Your task to perform on an android device: Open internet settings Image 0: 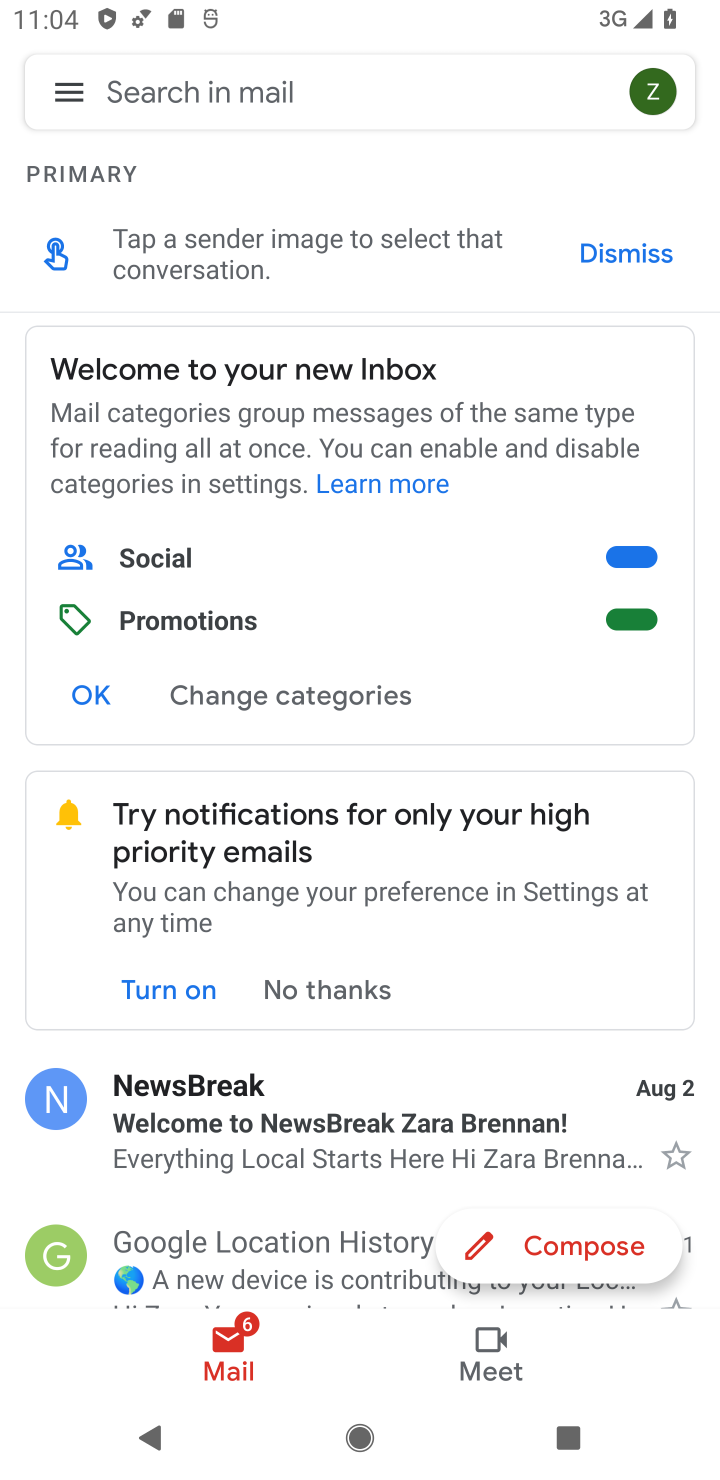
Step 0: press home button
Your task to perform on an android device: Open internet settings Image 1: 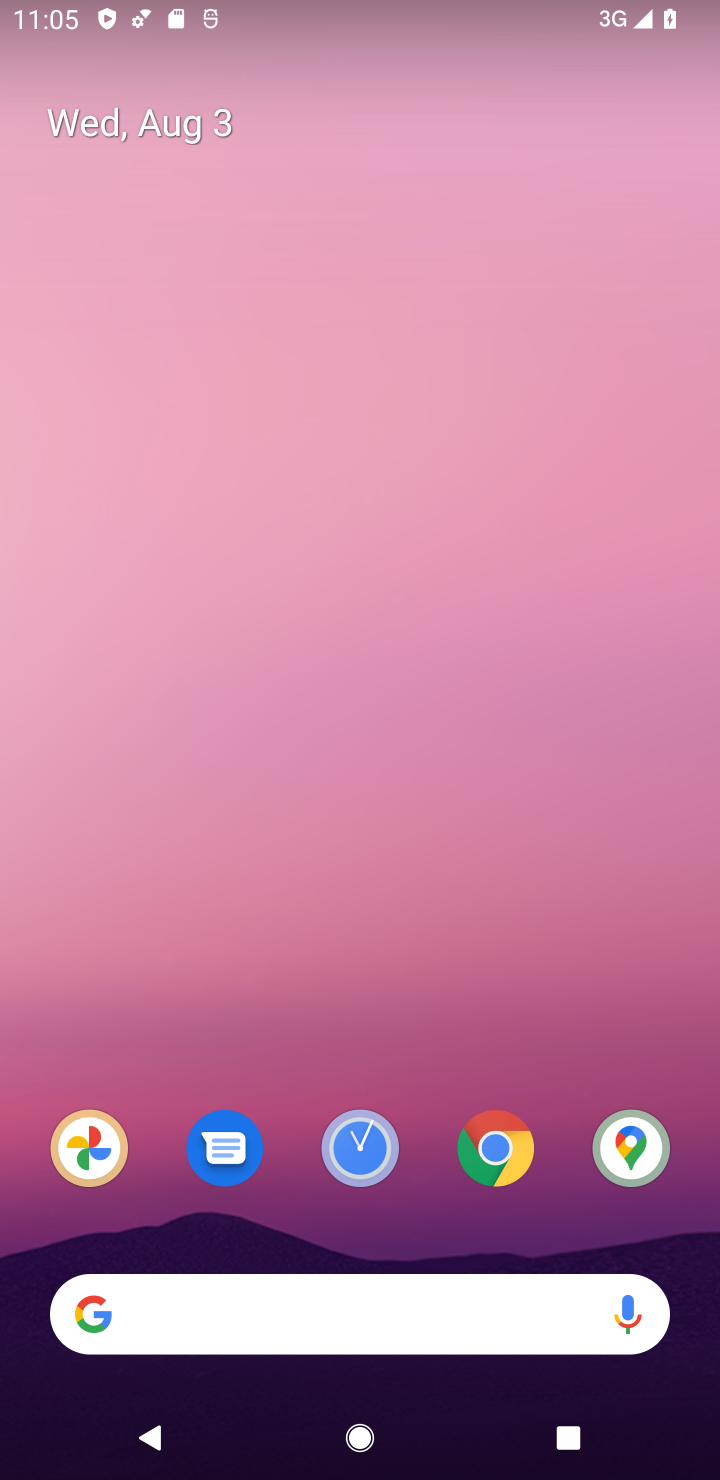
Step 1: drag from (434, 477) to (458, 0)
Your task to perform on an android device: Open internet settings Image 2: 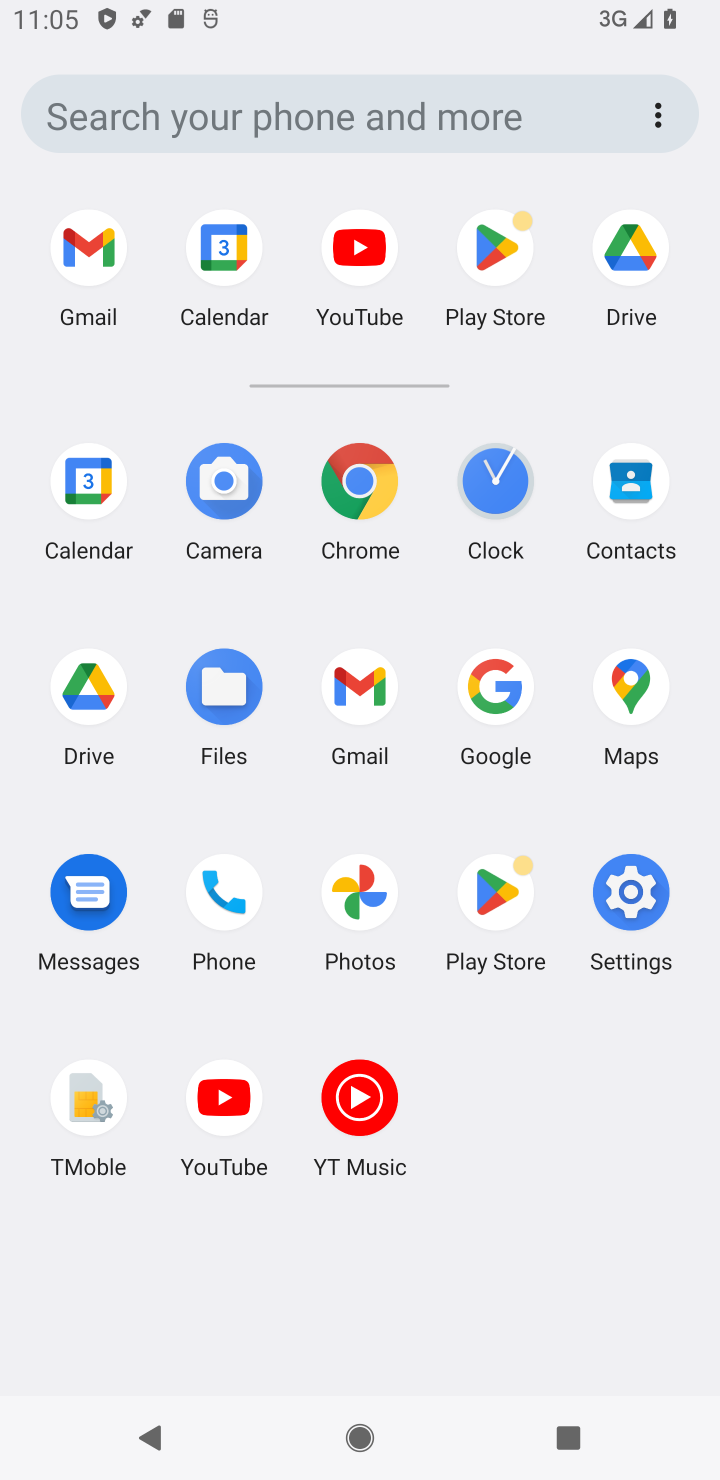
Step 2: click (354, 482)
Your task to perform on an android device: Open internet settings Image 3: 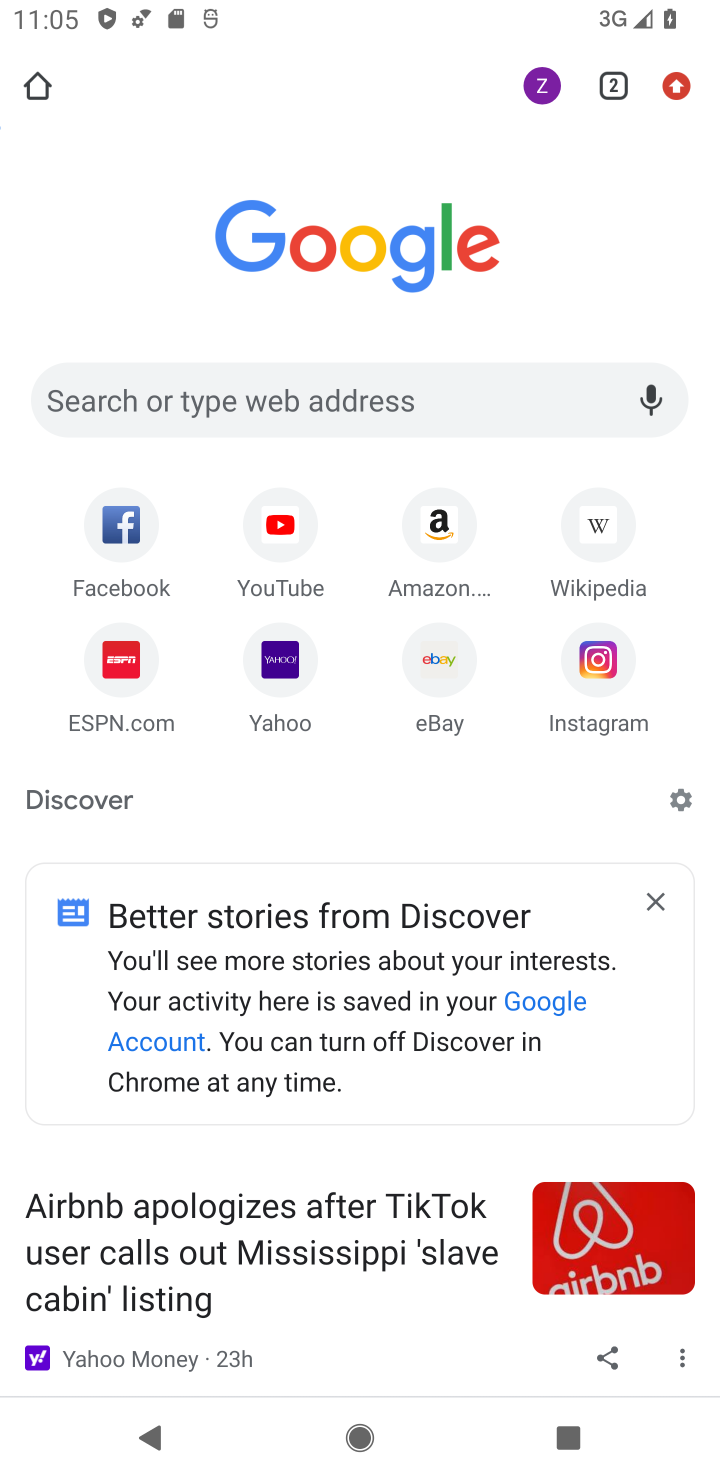
Step 3: click (673, 86)
Your task to perform on an android device: Open internet settings Image 4: 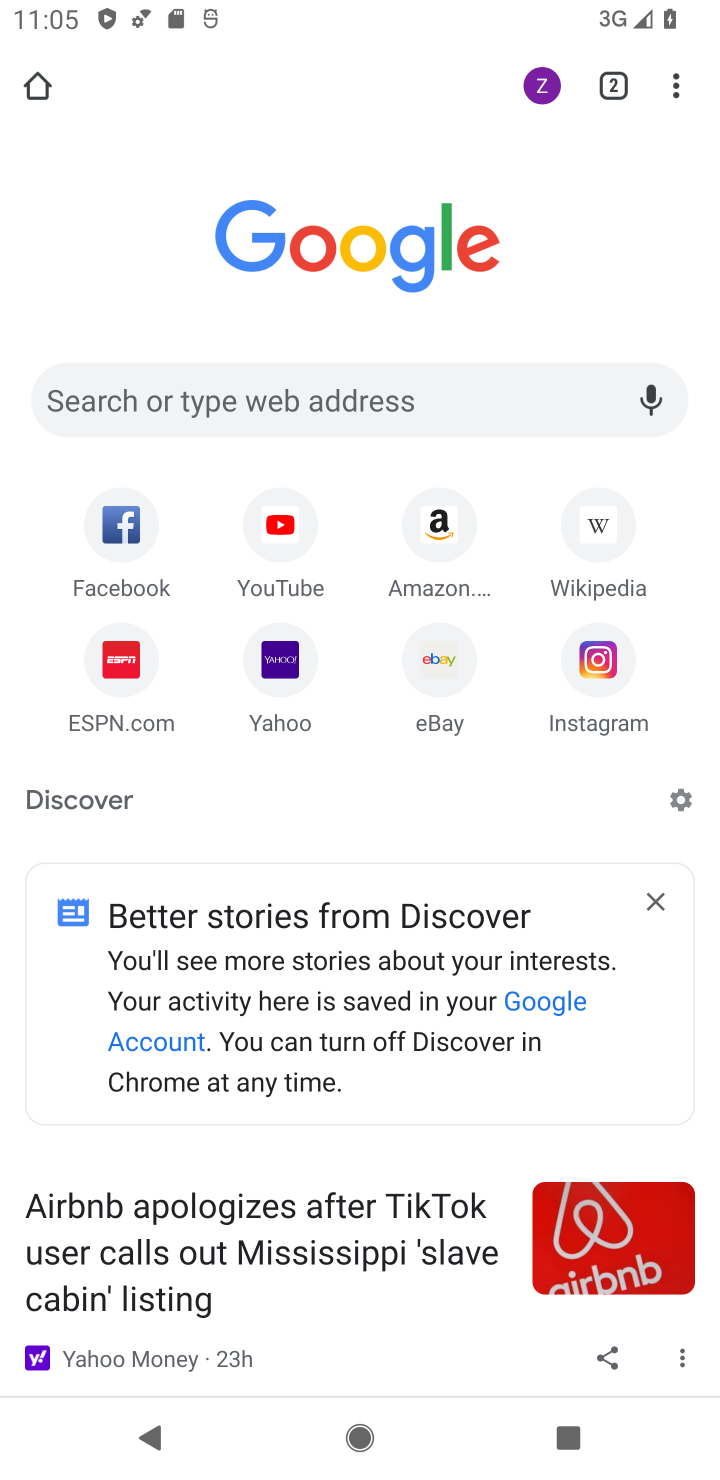
Step 4: click (678, 92)
Your task to perform on an android device: Open internet settings Image 5: 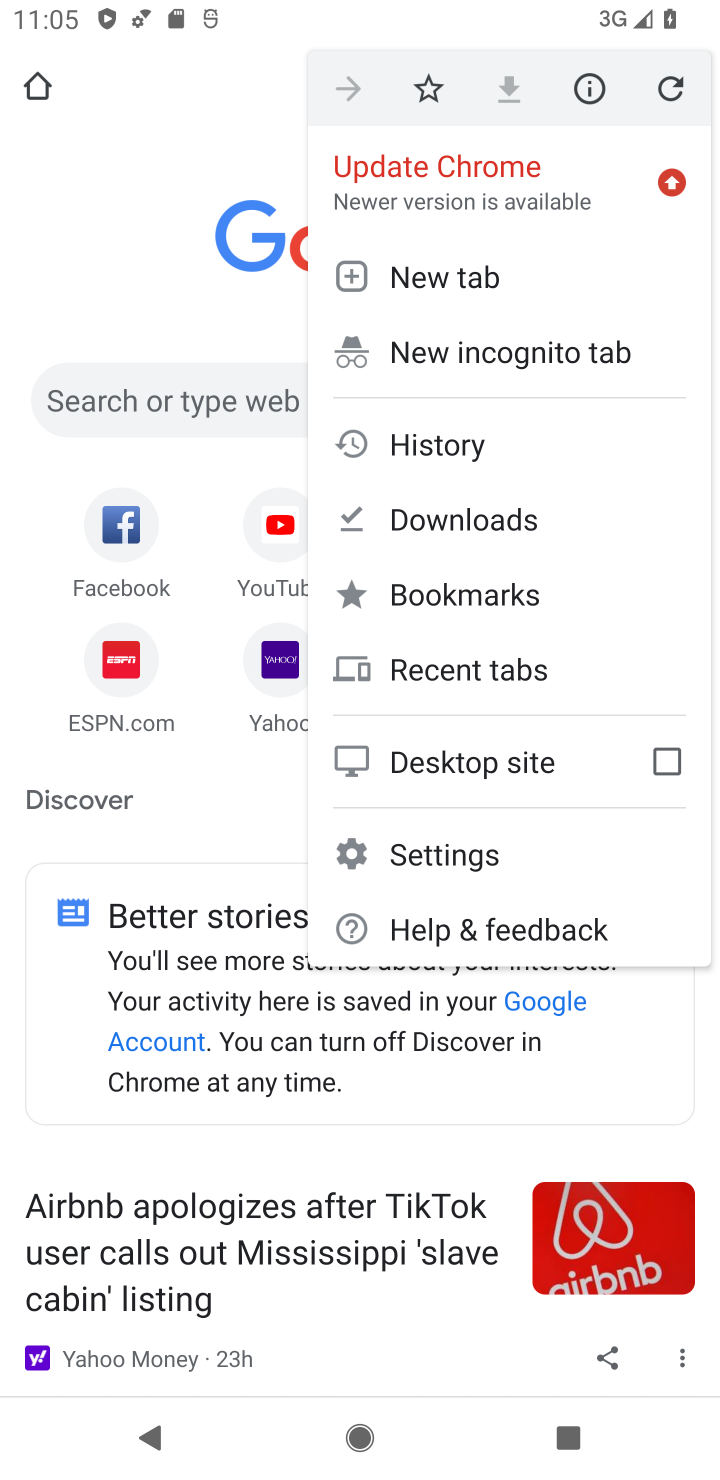
Step 5: press home button
Your task to perform on an android device: Open internet settings Image 6: 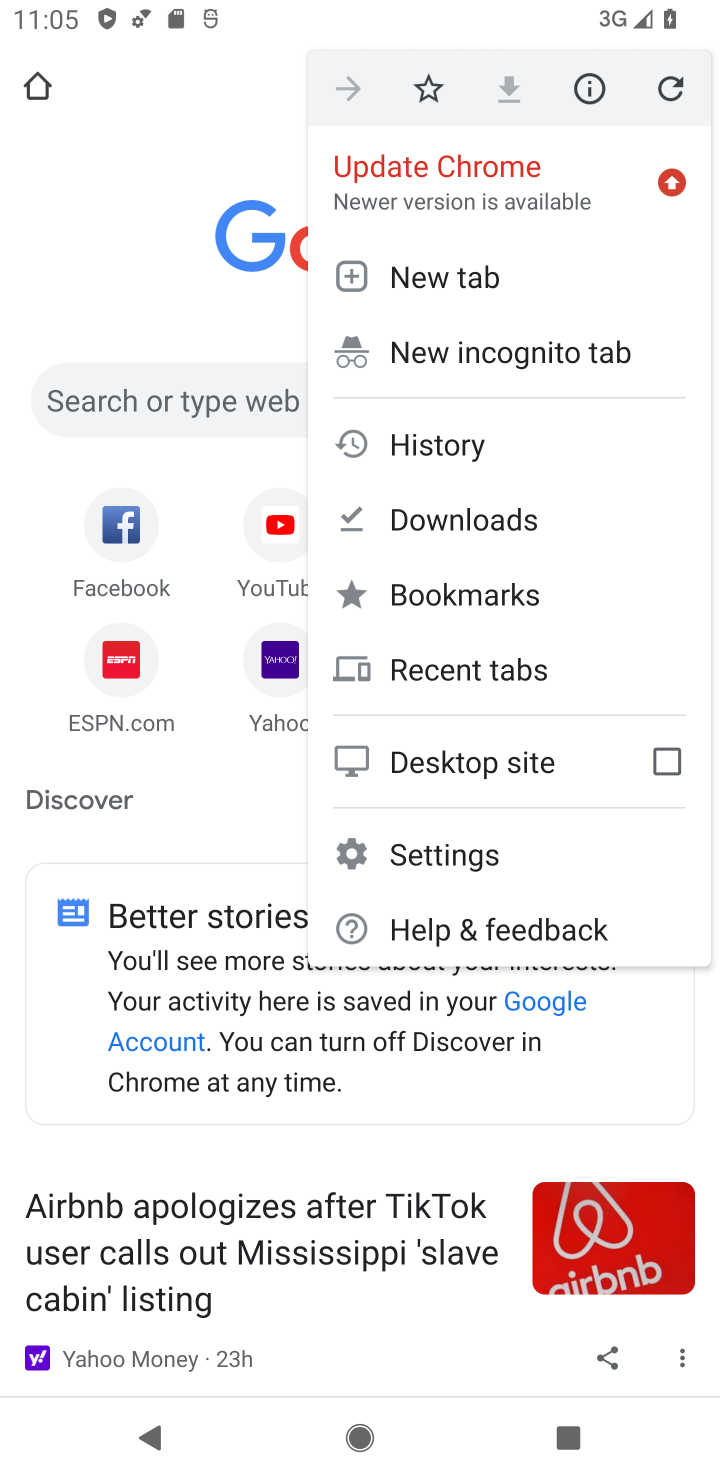
Step 6: press home button
Your task to perform on an android device: Open internet settings Image 7: 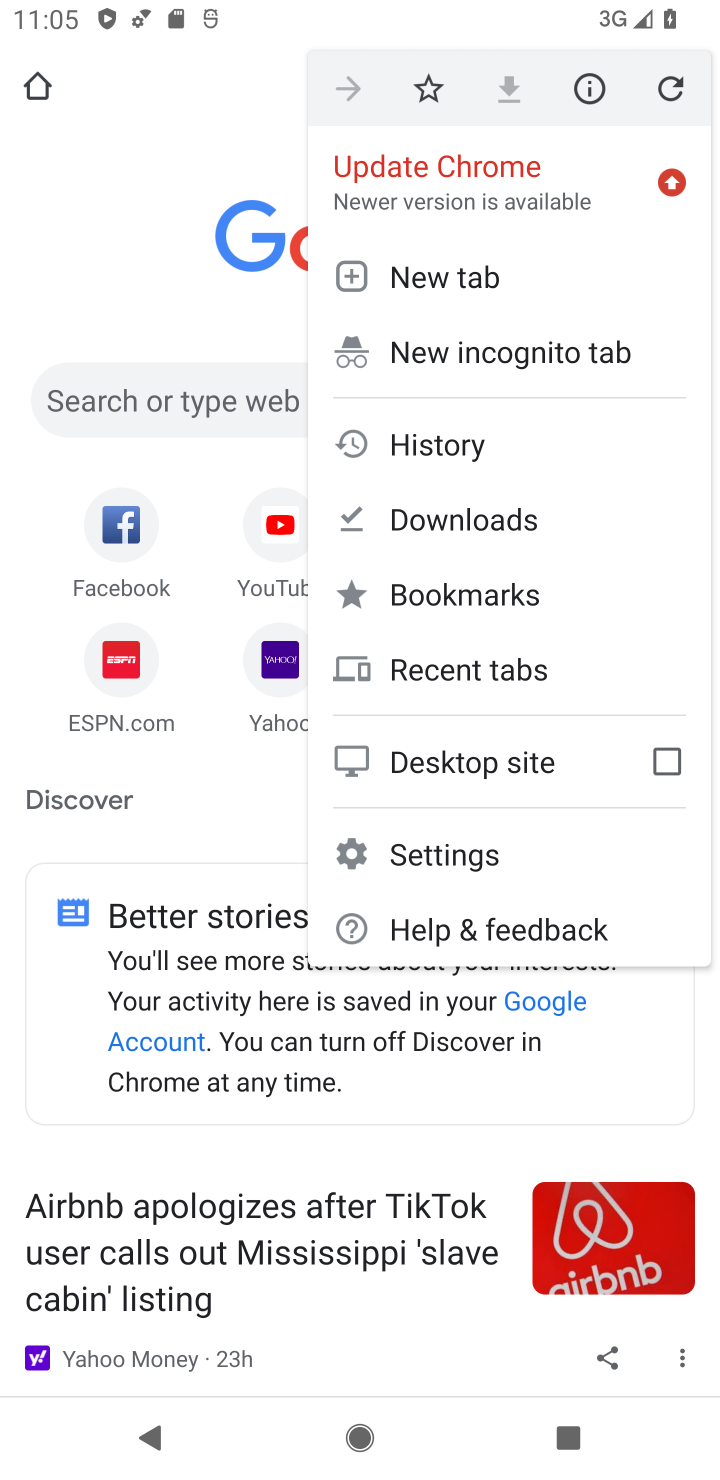
Step 7: press home button
Your task to perform on an android device: Open internet settings Image 8: 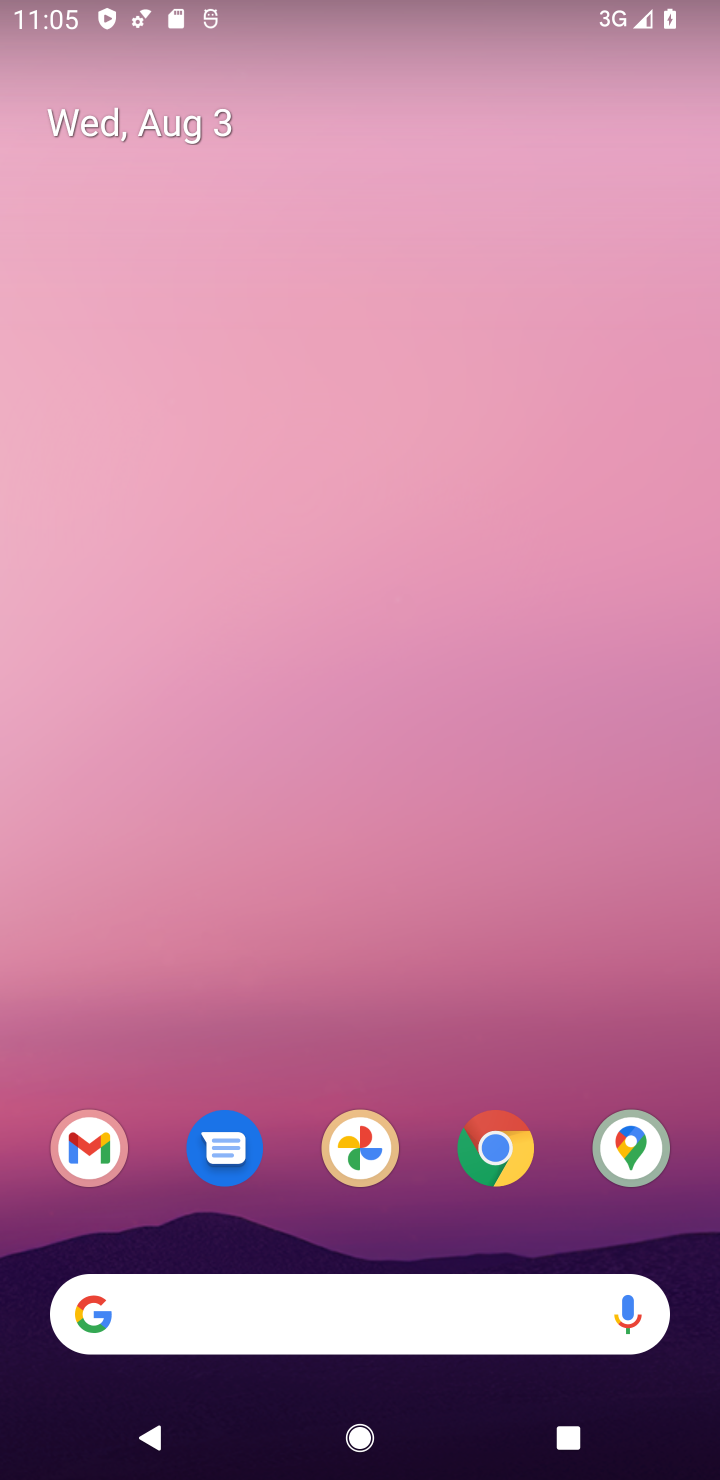
Step 8: drag from (431, 988) to (443, 118)
Your task to perform on an android device: Open internet settings Image 9: 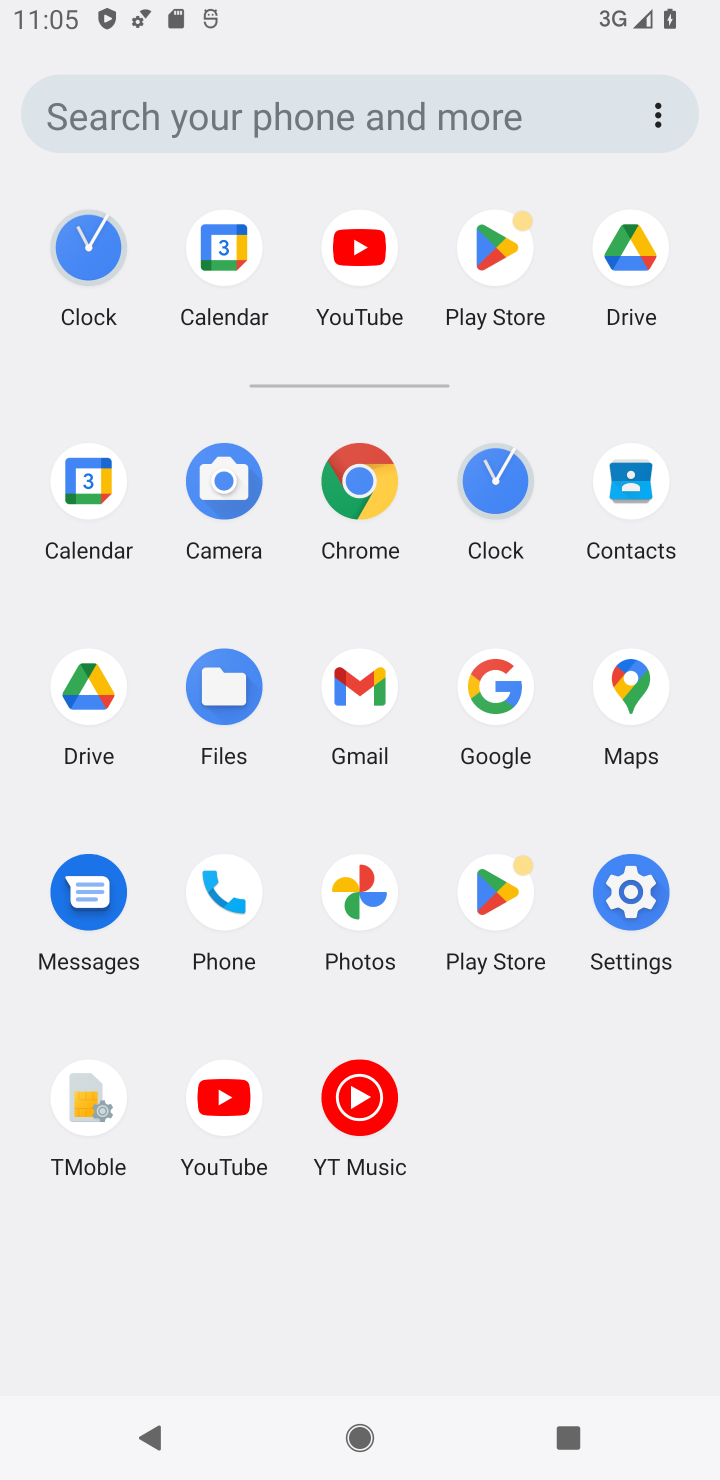
Step 9: click (642, 907)
Your task to perform on an android device: Open internet settings Image 10: 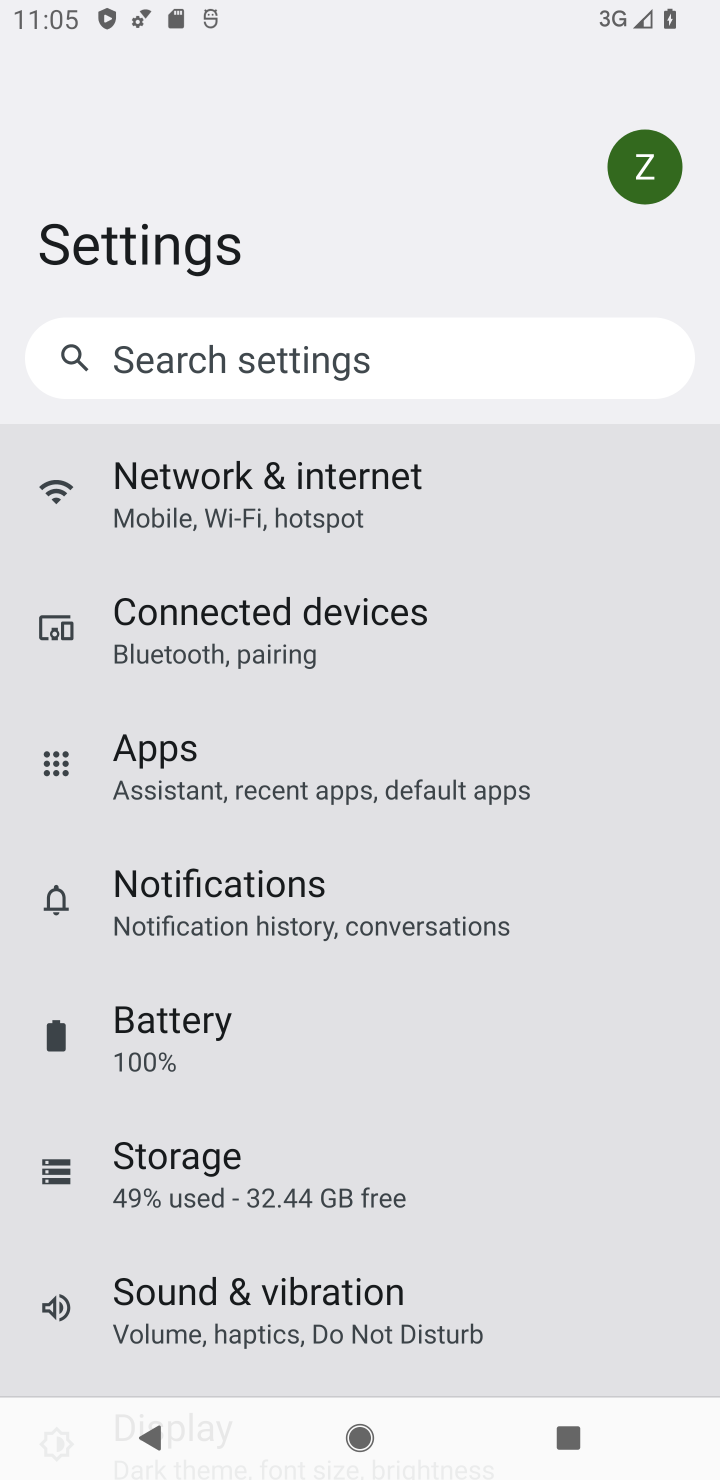
Step 10: click (260, 499)
Your task to perform on an android device: Open internet settings Image 11: 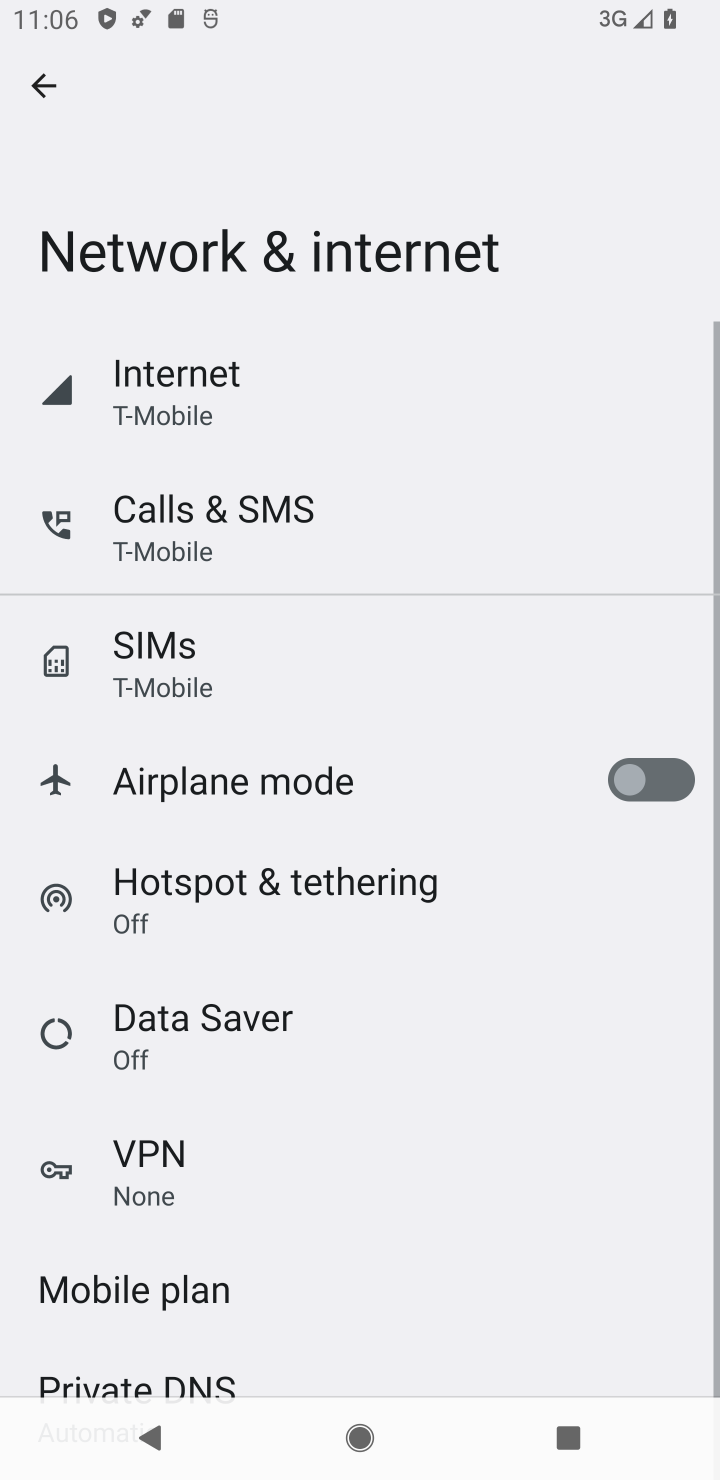
Step 11: click (161, 395)
Your task to perform on an android device: Open internet settings Image 12: 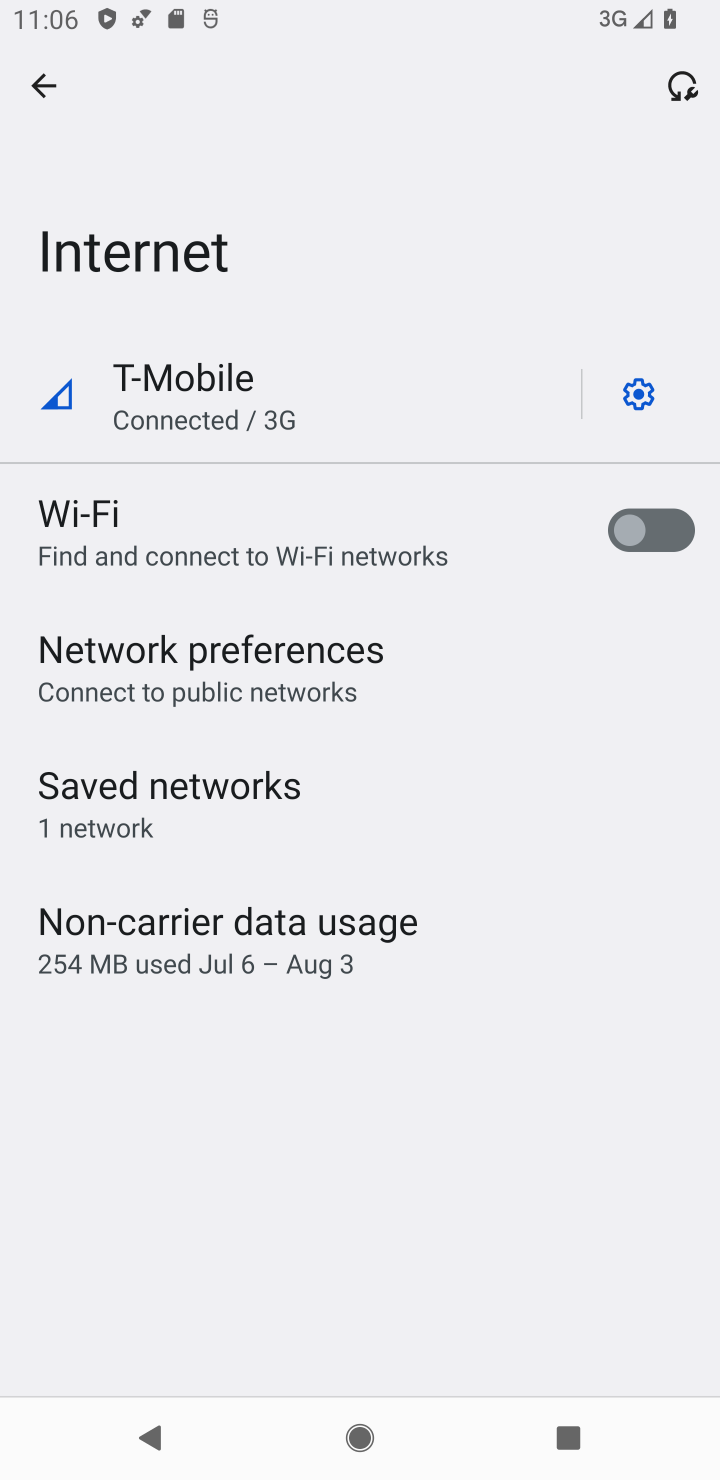
Step 12: task complete